Your task to perform on an android device: change the upload size in google photos Image 0: 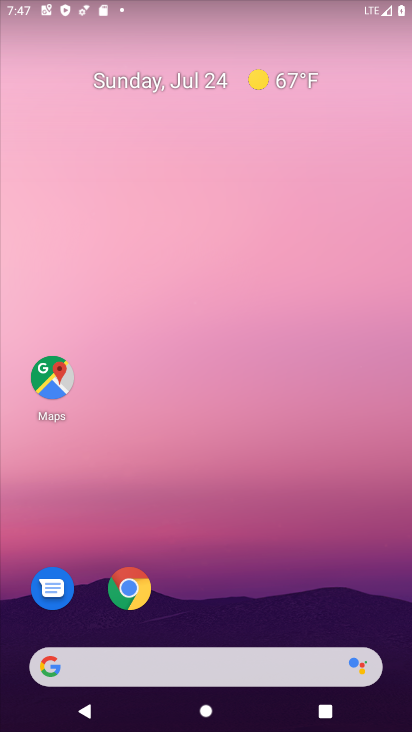
Step 0: drag from (208, 644) to (225, 170)
Your task to perform on an android device: change the upload size in google photos Image 1: 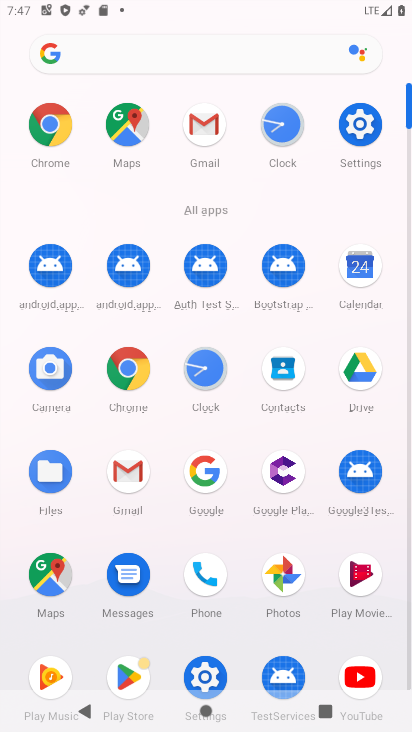
Step 1: click (282, 570)
Your task to perform on an android device: change the upload size in google photos Image 2: 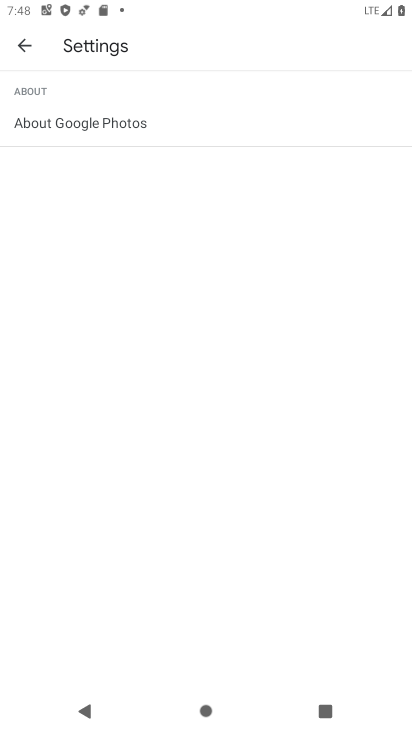
Step 2: click (14, 40)
Your task to perform on an android device: change the upload size in google photos Image 3: 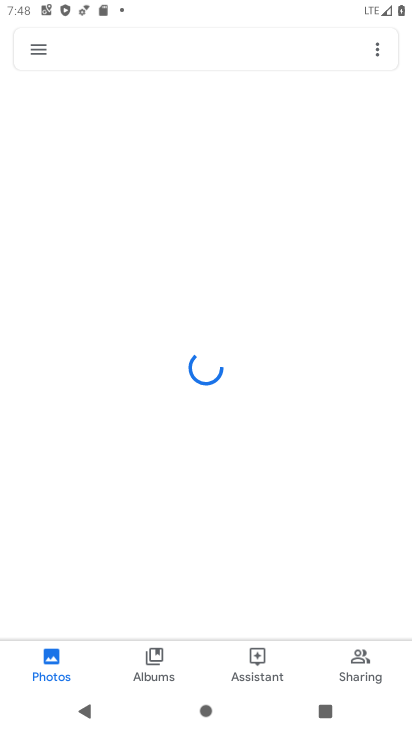
Step 3: click (32, 50)
Your task to perform on an android device: change the upload size in google photos Image 4: 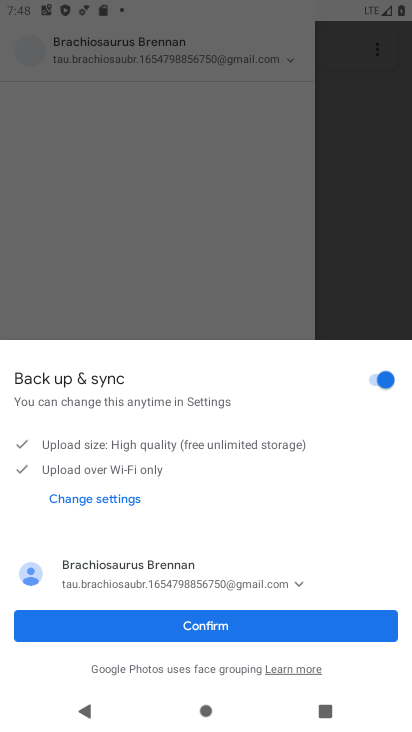
Step 4: click (134, 623)
Your task to perform on an android device: change the upload size in google photos Image 5: 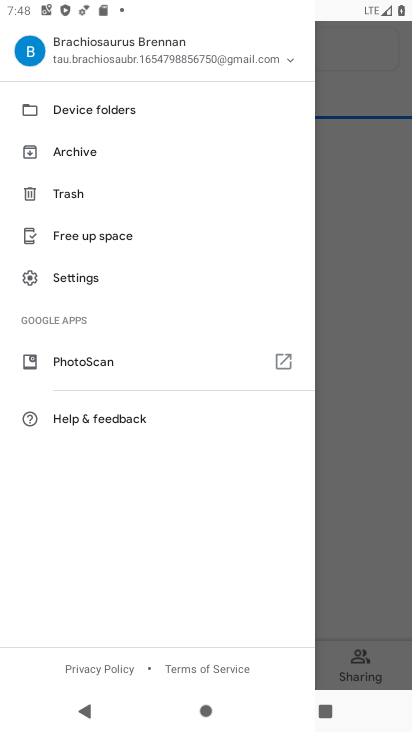
Step 5: click (72, 274)
Your task to perform on an android device: change the upload size in google photos Image 6: 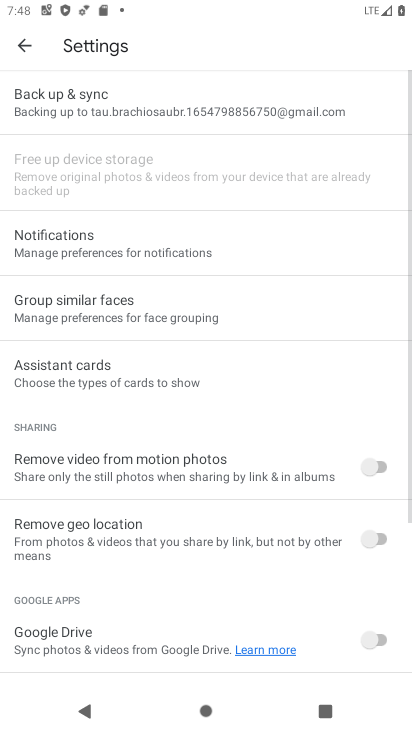
Step 6: click (85, 83)
Your task to perform on an android device: change the upload size in google photos Image 7: 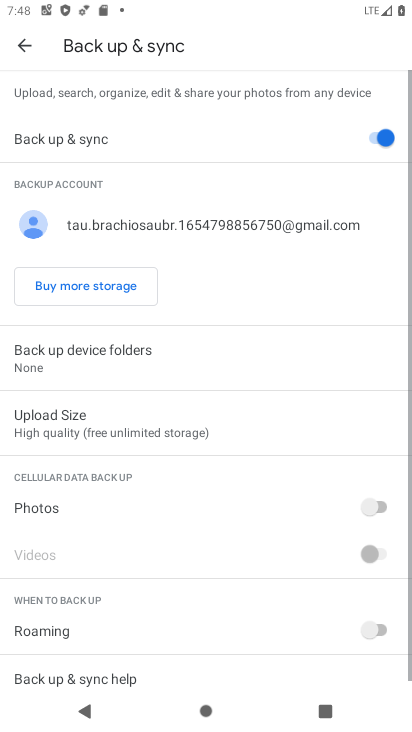
Step 7: click (85, 416)
Your task to perform on an android device: change the upload size in google photos Image 8: 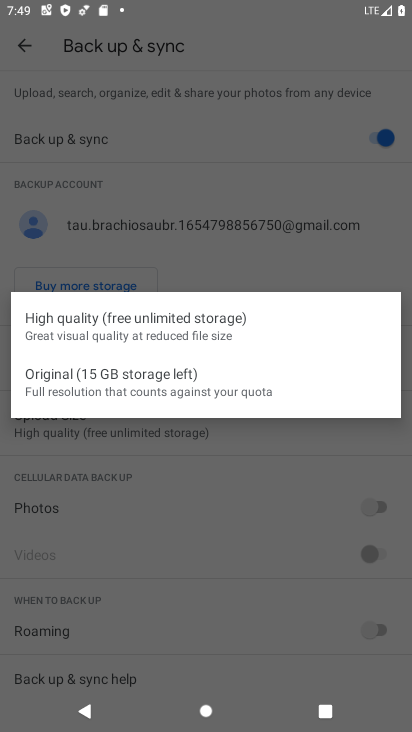
Step 8: click (137, 371)
Your task to perform on an android device: change the upload size in google photos Image 9: 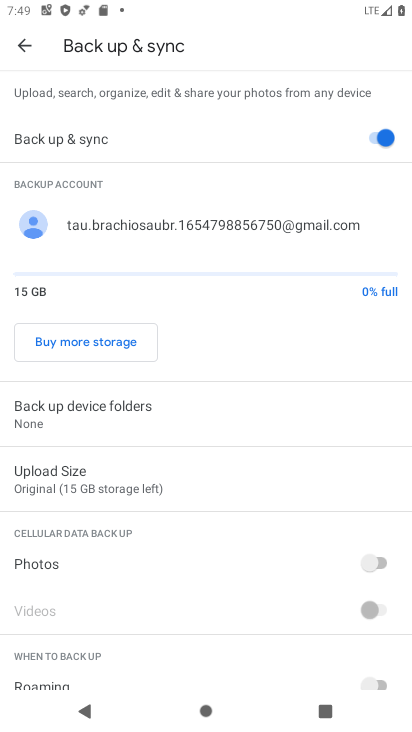
Step 9: task complete